Your task to perform on an android device: Show me recent news Image 0: 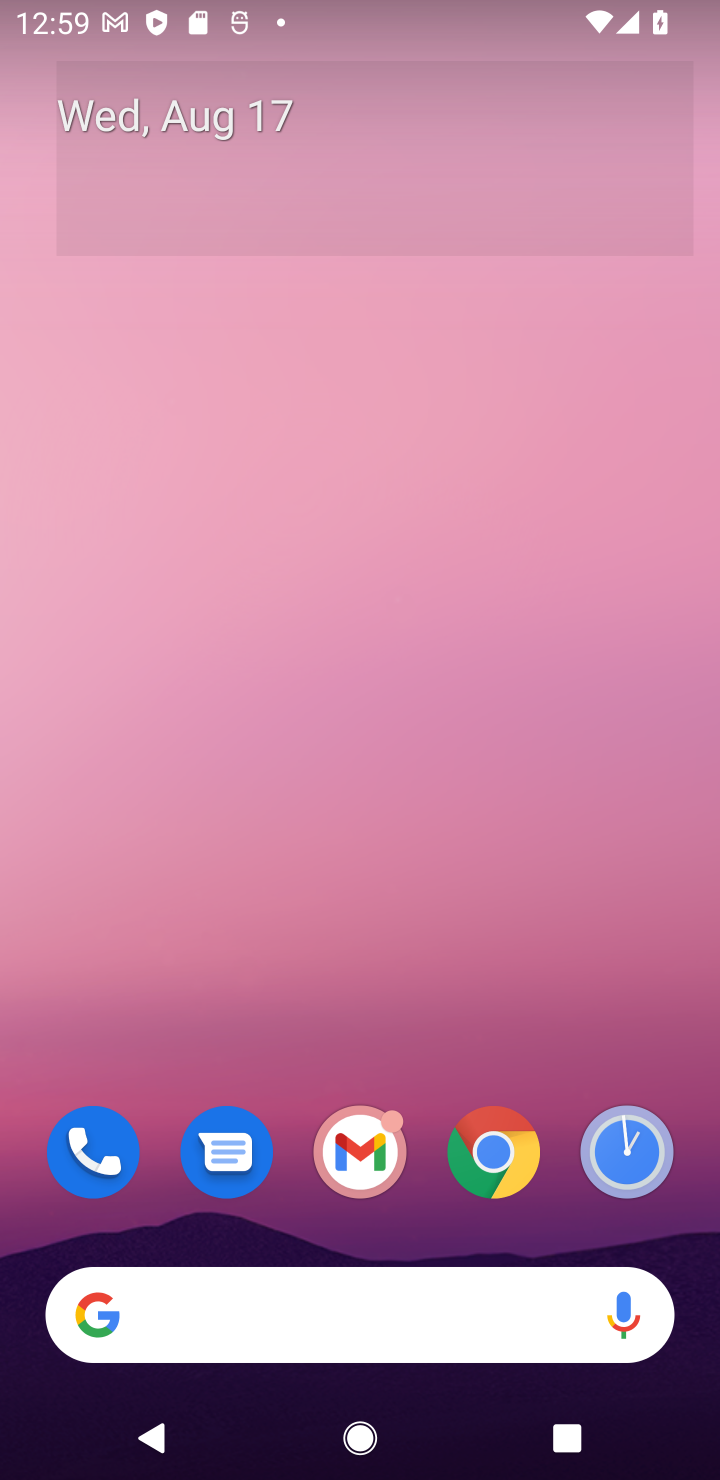
Step 0: drag from (548, 1177) to (326, 85)
Your task to perform on an android device: Show me recent news Image 1: 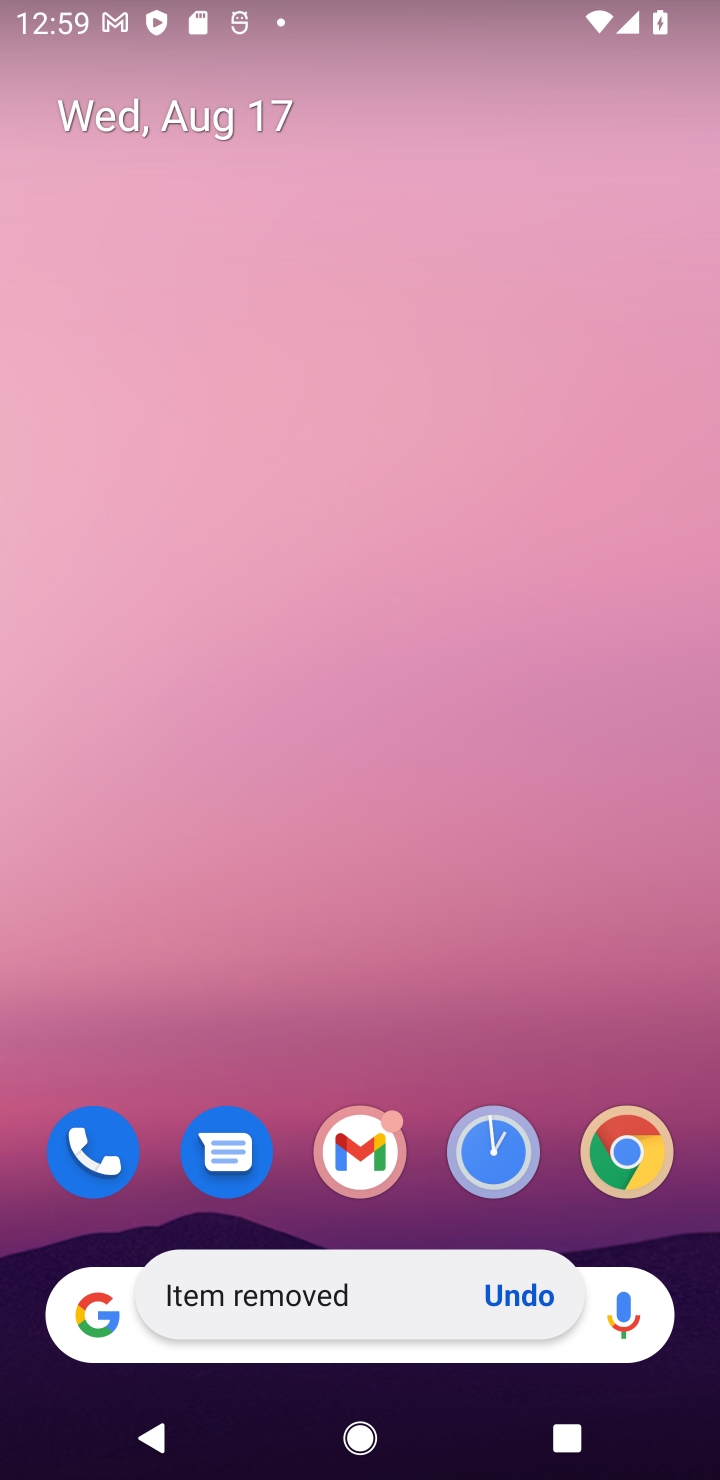
Step 1: drag from (556, 1236) to (296, 9)
Your task to perform on an android device: Show me recent news Image 2: 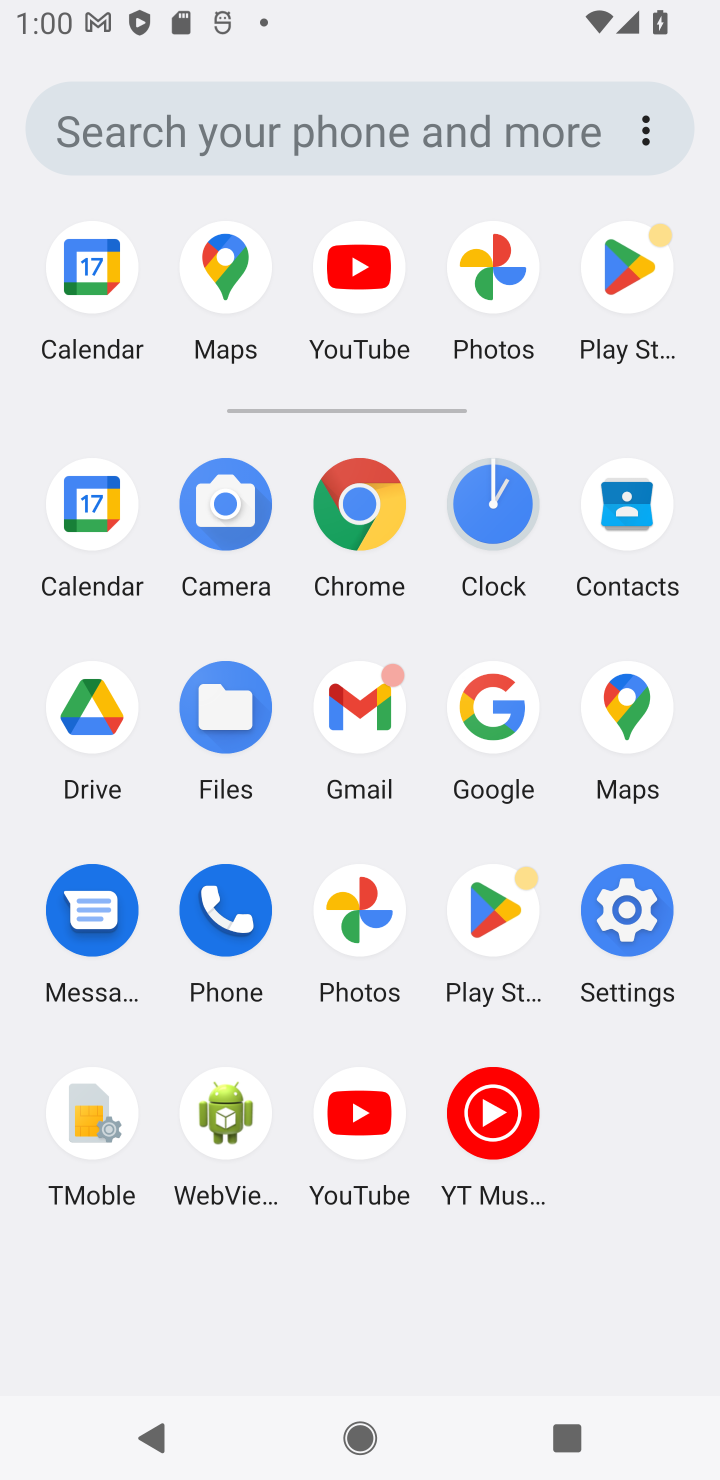
Step 2: click (480, 707)
Your task to perform on an android device: Show me recent news Image 3: 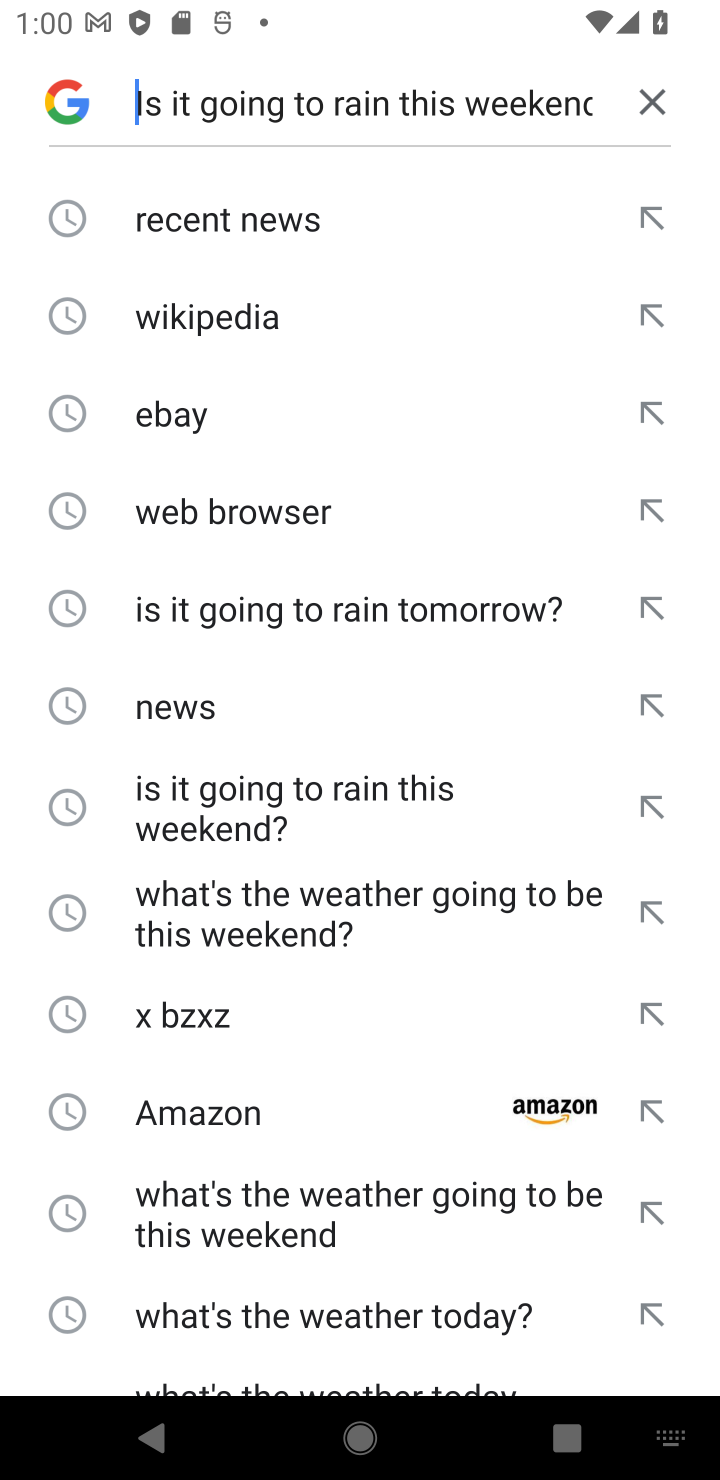
Step 3: click (652, 91)
Your task to perform on an android device: Show me recent news Image 4: 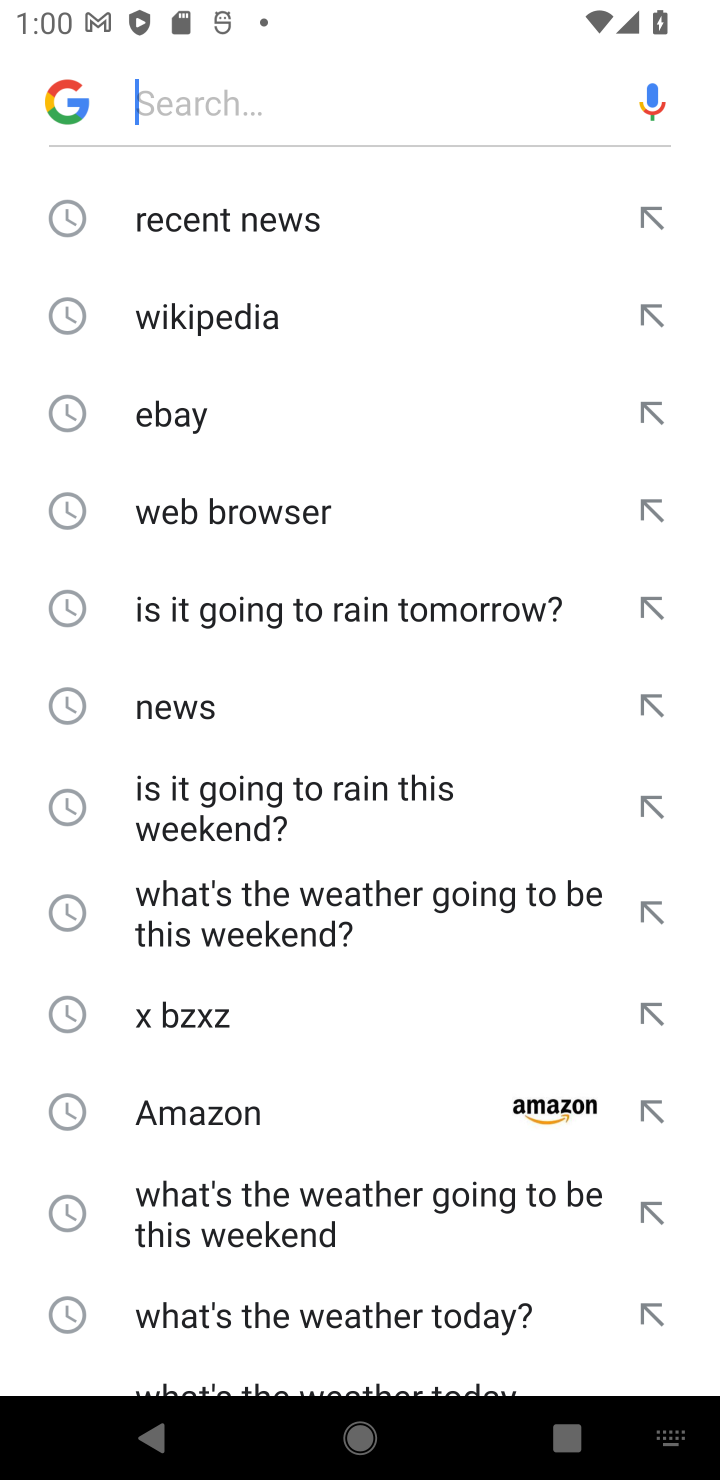
Step 4: click (229, 215)
Your task to perform on an android device: Show me recent news Image 5: 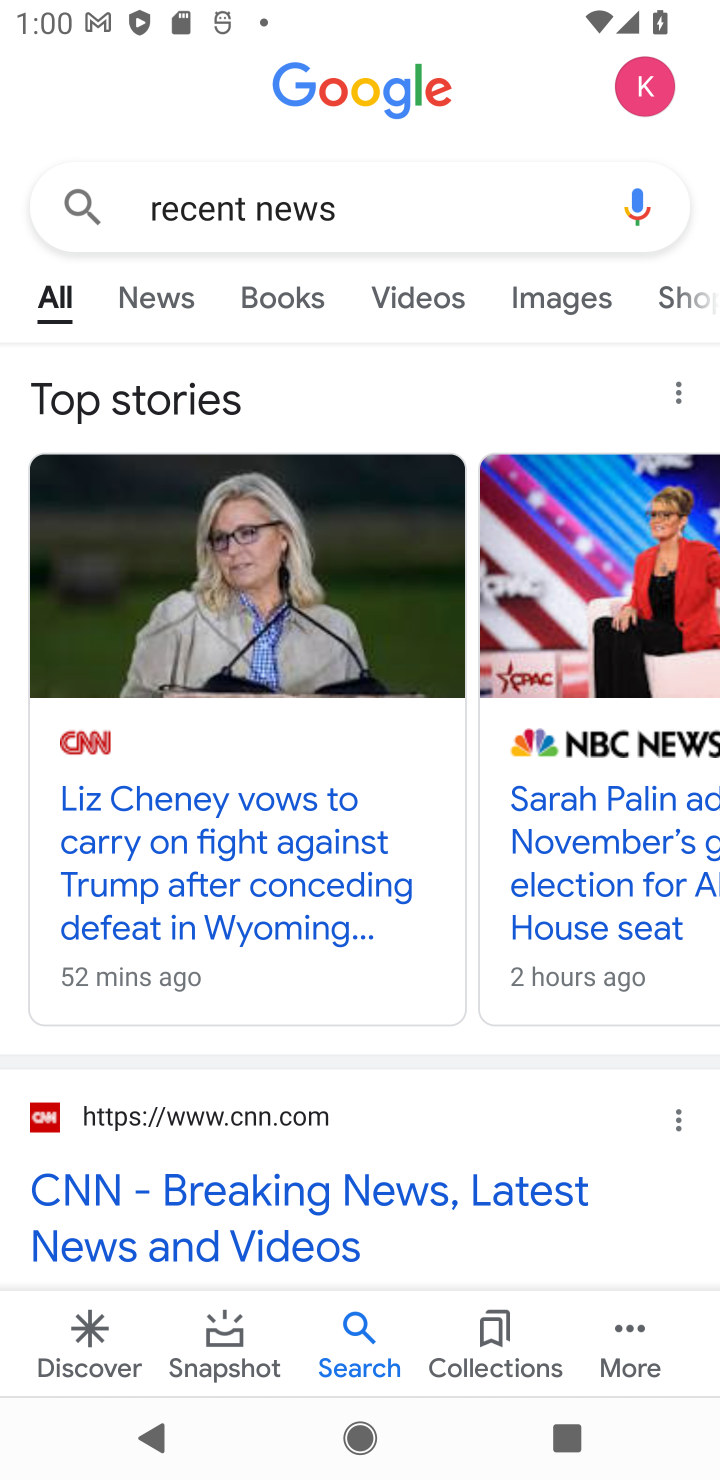
Step 5: task complete